Your task to perform on an android device: toggle airplane mode Image 0: 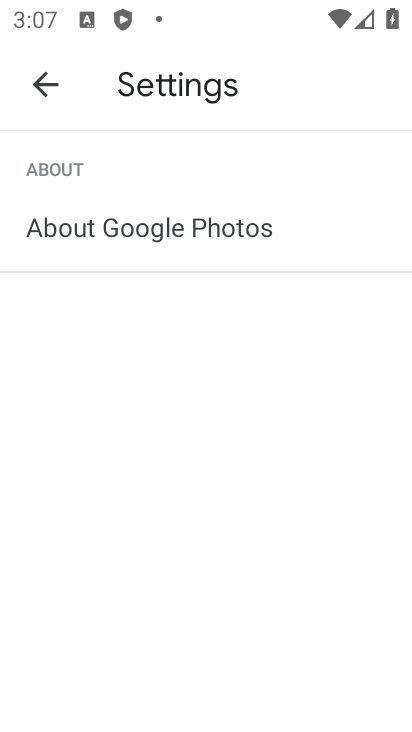
Step 0: press home button
Your task to perform on an android device: toggle airplane mode Image 1: 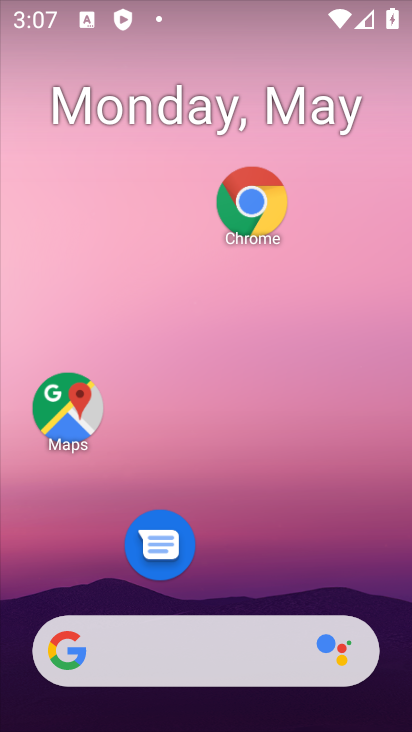
Step 1: drag from (231, 570) to (225, 187)
Your task to perform on an android device: toggle airplane mode Image 2: 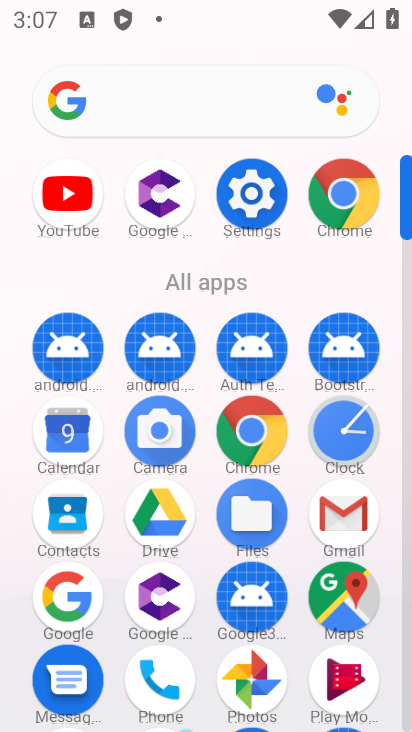
Step 2: click (236, 205)
Your task to perform on an android device: toggle airplane mode Image 3: 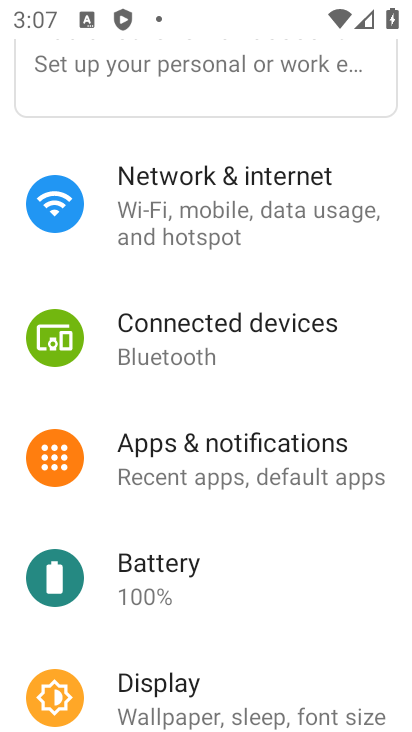
Step 3: click (236, 205)
Your task to perform on an android device: toggle airplane mode Image 4: 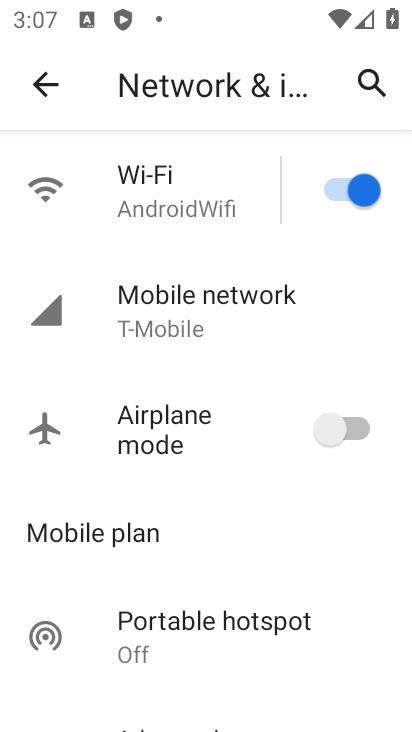
Step 4: click (360, 437)
Your task to perform on an android device: toggle airplane mode Image 5: 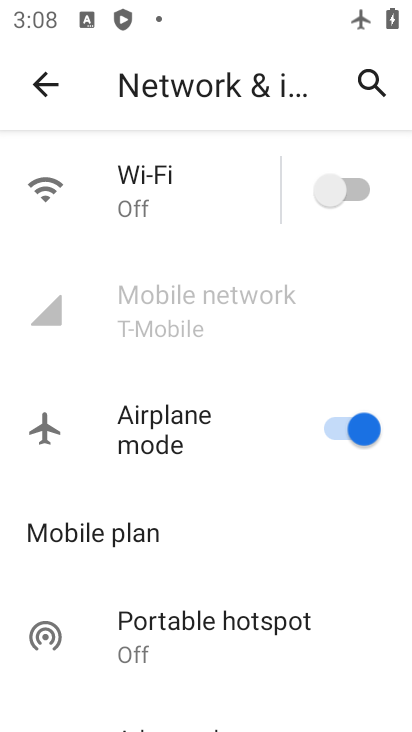
Step 5: task complete